Your task to perform on an android device: visit the assistant section in the google photos Image 0: 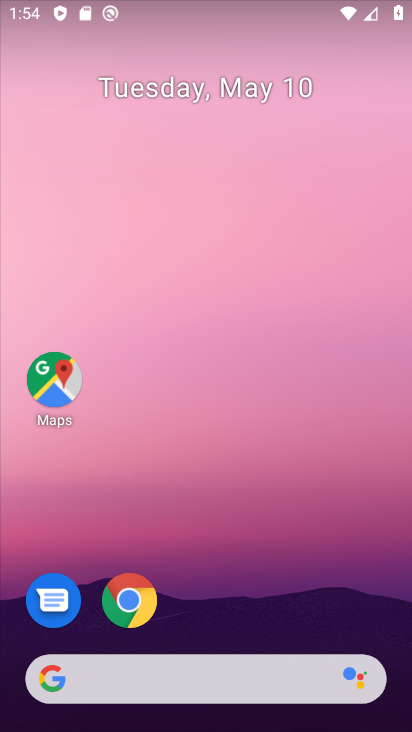
Step 0: drag from (230, 588) to (267, 134)
Your task to perform on an android device: visit the assistant section in the google photos Image 1: 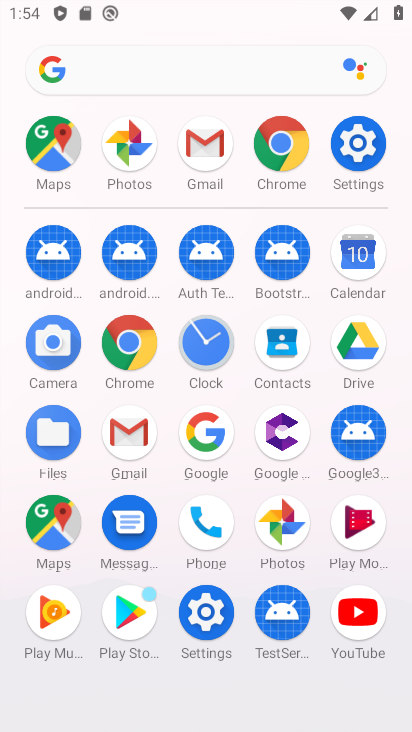
Step 1: click (286, 539)
Your task to perform on an android device: visit the assistant section in the google photos Image 2: 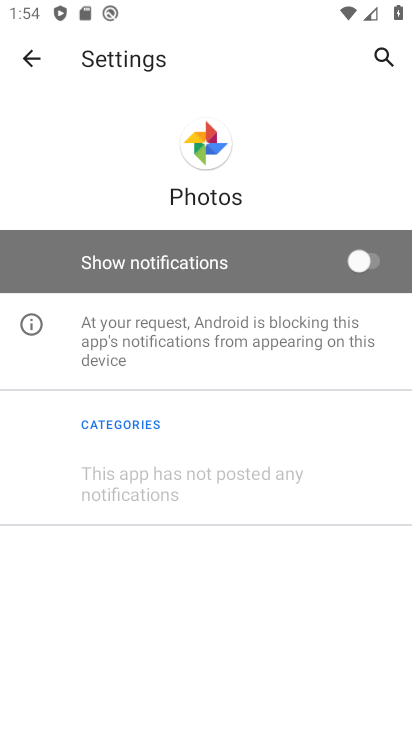
Step 2: click (35, 56)
Your task to perform on an android device: visit the assistant section in the google photos Image 3: 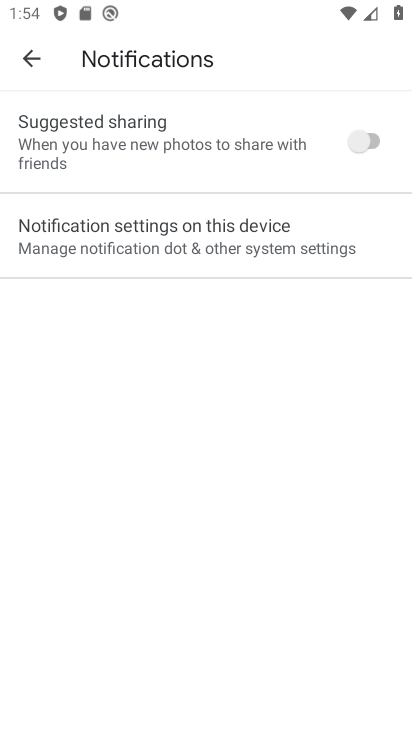
Step 3: click (35, 56)
Your task to perform on an android device: visit the assistant section in the google photos Image 4: 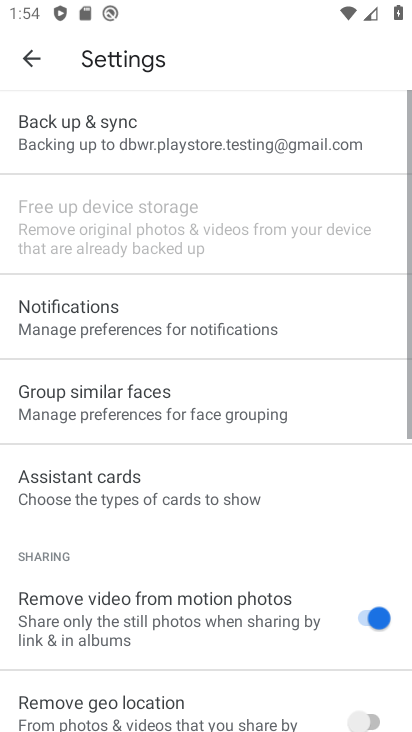
Step 4: click (35, 56)
Your task to perform on an android device: visit the assistant section in the google photos Image 5: 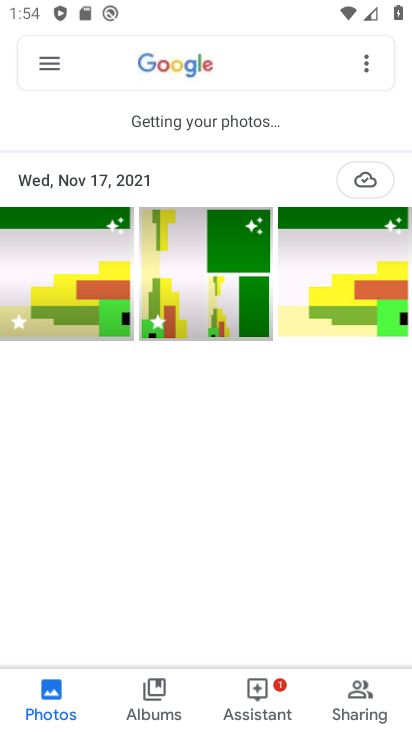
Step 5: click (272, 695)
Your task to perform on an android device: visit the assistant section in the google photos Image 6: 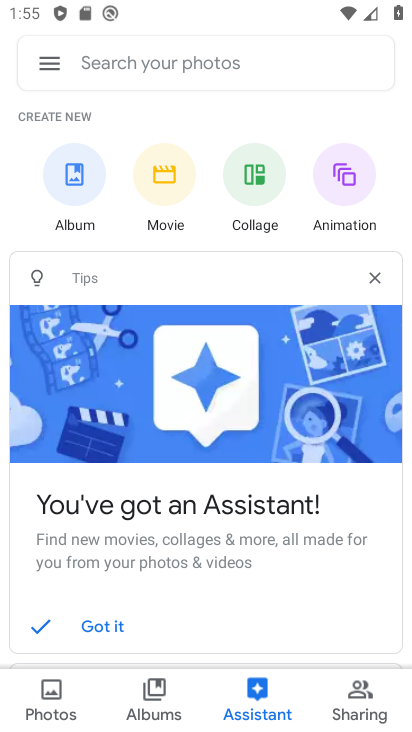
Step 6: task complete